Your task to perform on an android device: Open Maps and search for coffee Image 0: 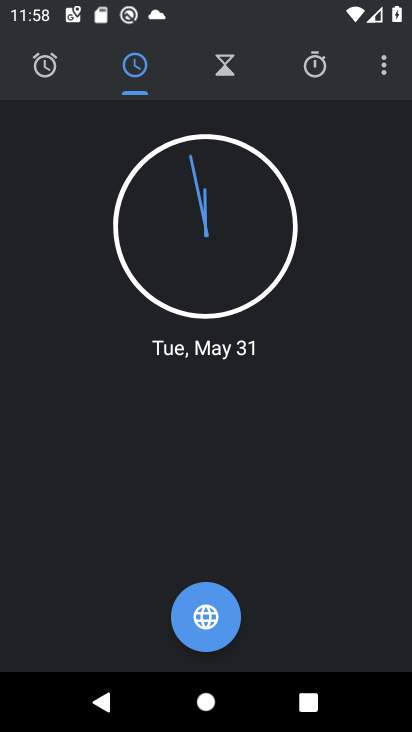
Step 0: press home button
Your task to perform on an android device: Open Maps and search for coffee Image 1: 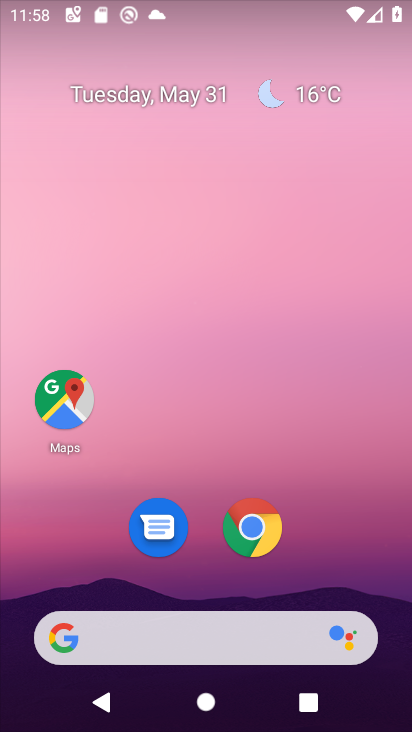
Step 1: click (68, 399)
Your task to perform on an android device: Open Maps and search for coffee Image 2: 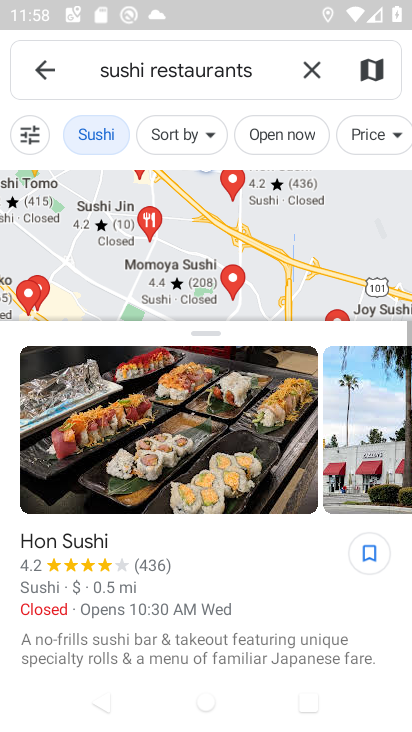
Step 2: click (301, 74)
Your task to perform on an android device: Open Maps and search for coffee Image 3: 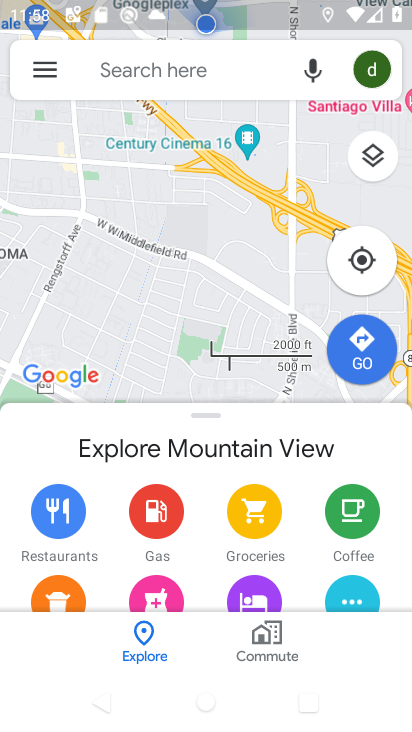
Step 3: click (99, 71)
Your task to perform on an android device: Open Maps and search for coffee Image 4: 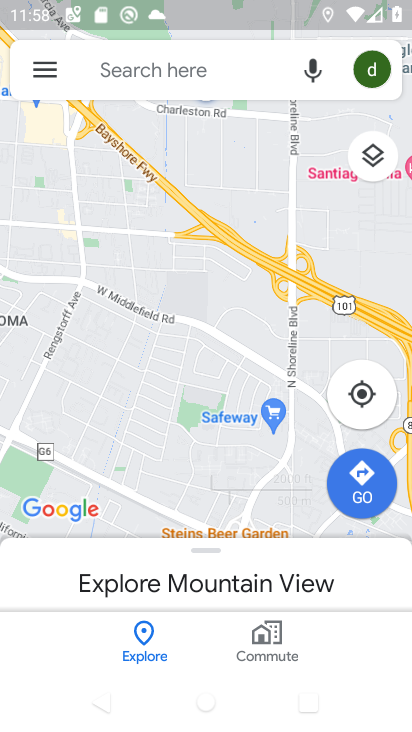
Step 4: click (107, 72)
Your task to perform on an android device: Open Maps and search for coffee Image 5: 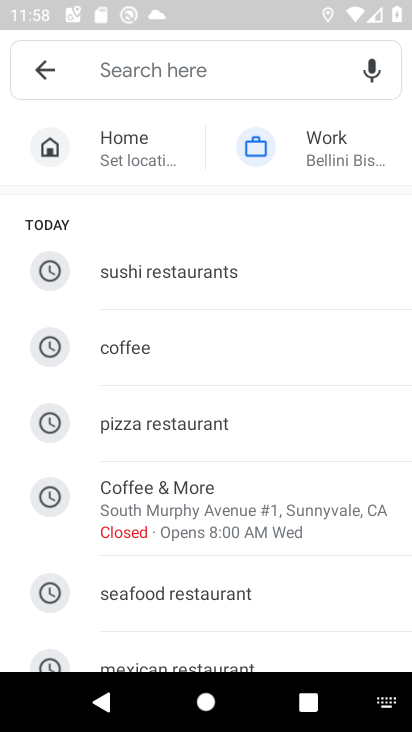
Step 5: type "coffee"
Your task to perform on an android device: Open Maps and search for coffee Image 6: 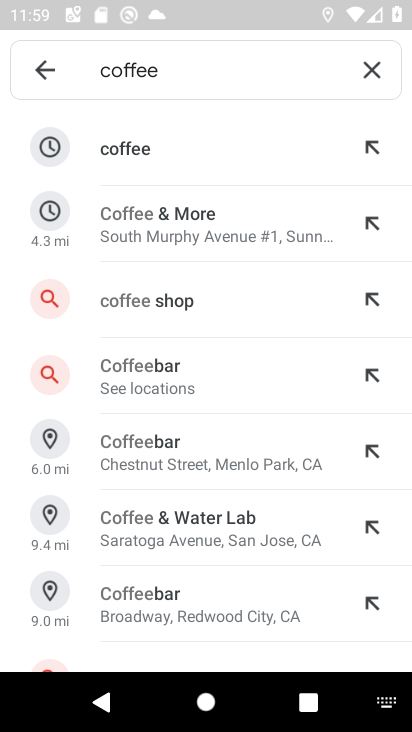
Step 6: click (119, 153)
Your task to perform on an android device: Open Maps and search for coffee Image 7: 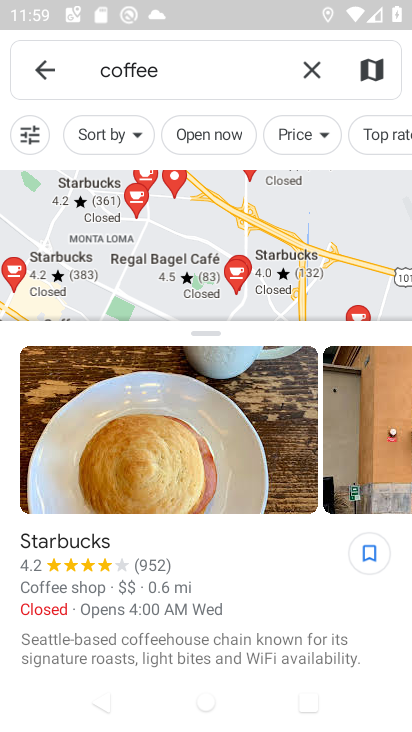
Step 7: task complete